Your task to perform on an android device: check google app version Image 0: 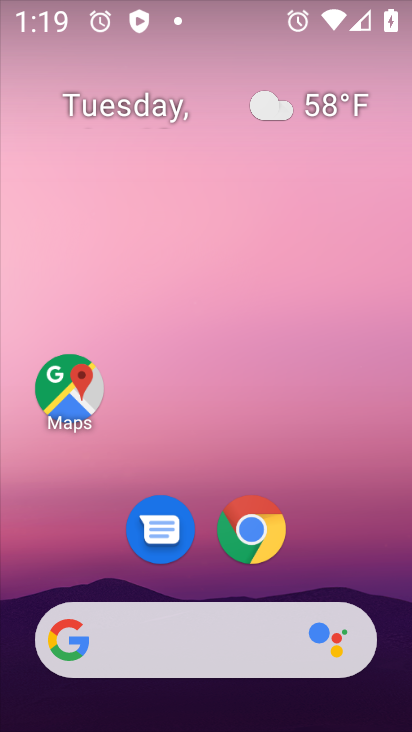
Step 0: drag from (205, 556) to (211, 255)
Your task to perform on an android device: check google app version Image 1: 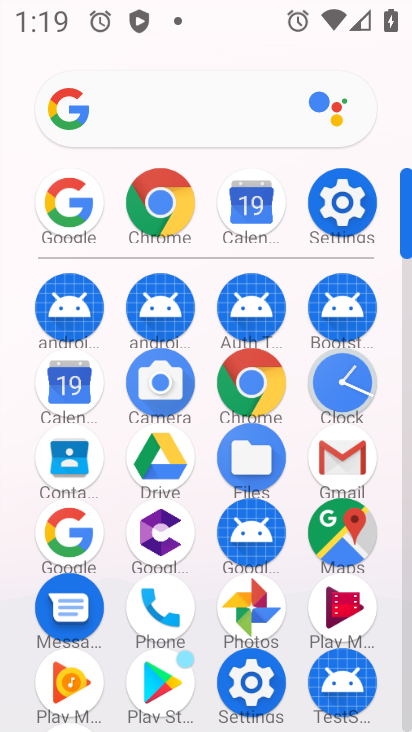
Step 1: click (71, 536)
Your task to perform on an android device: check google app version Image 2: 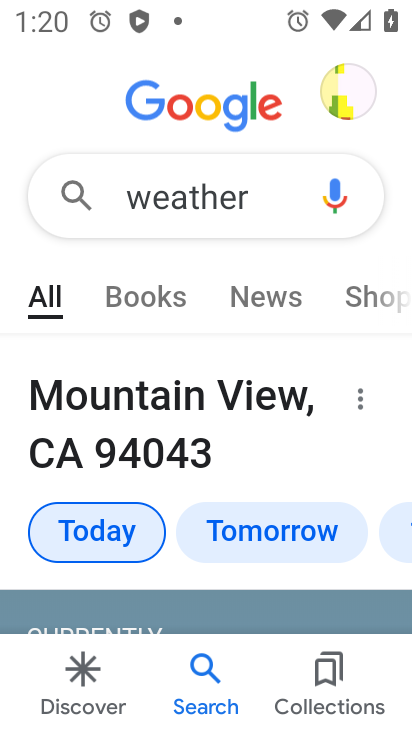
Step 2: click (346, 100)
Your task to perform on an android device: check google app version Image 3: 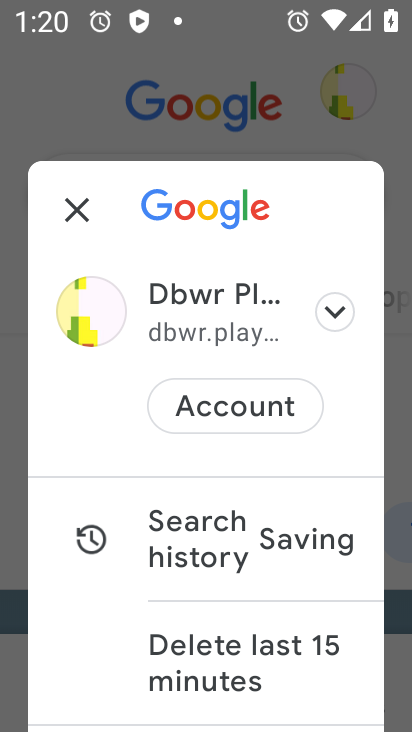
Step 3: drag from (279, 500) to (322, 98)
Your task to perform on an android device: check google app version Image 4: 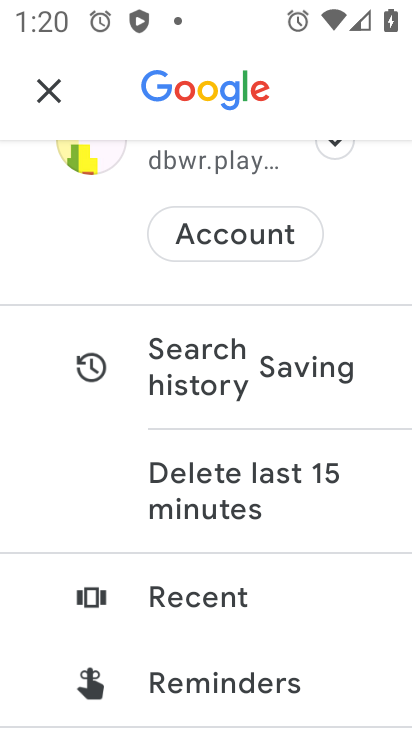
Step 4: drag from (233, 502) to (245, 136)
Your task to perform on an android device: check google app version Image 5: 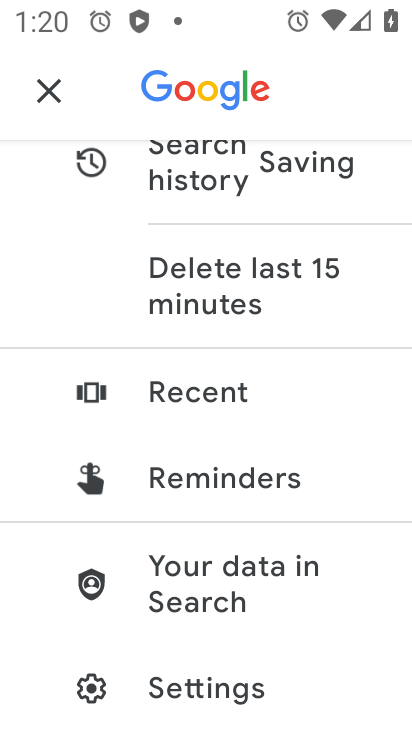
Step 5: drag from (221, 582) to (227, 216)
Your task to perform on an android device: check google app version Image 6: 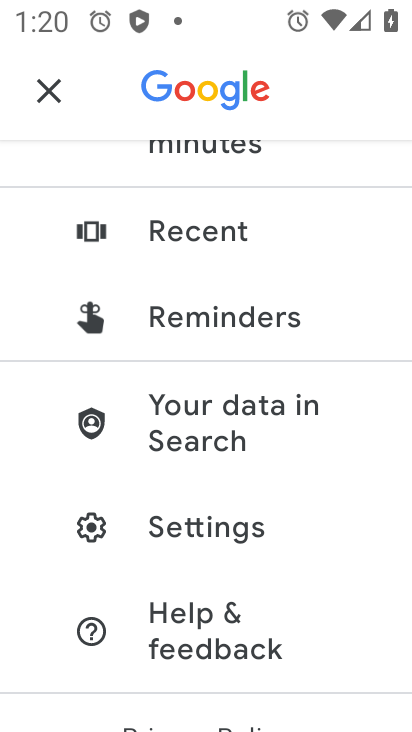
Step 6: click (208, 520)
Your task to perform on an android device: check google app version Image 7: 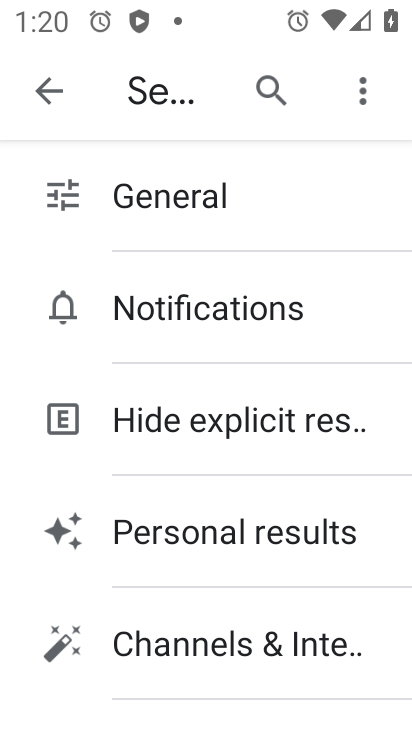
Step 7: drag from (228, 508) to (239, 225)
Your task to perform on an android device: check google app version Image 8: 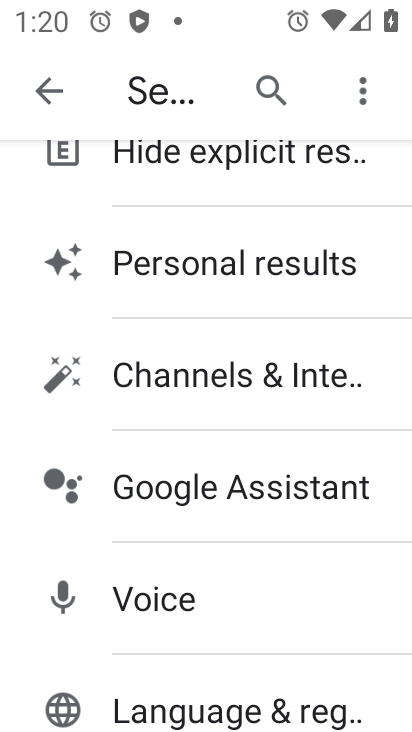
Step 8: drag from (244, 599) to (243, 317)
Your task to perform on an android device: check google app version Image 9: 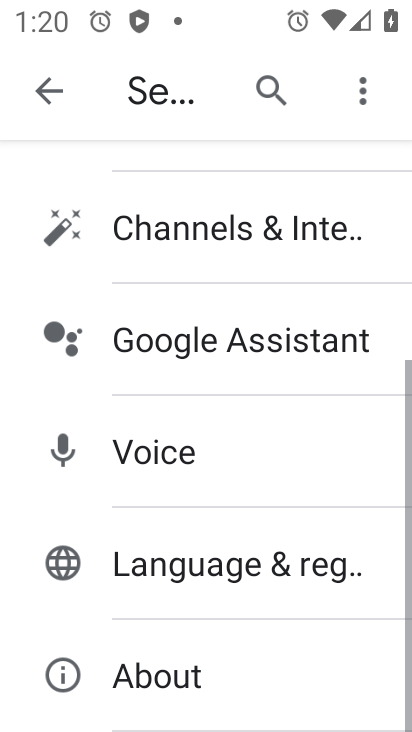
Step 9: click (230, 682)
Your task to perform on an android device: check google app version Image 10: 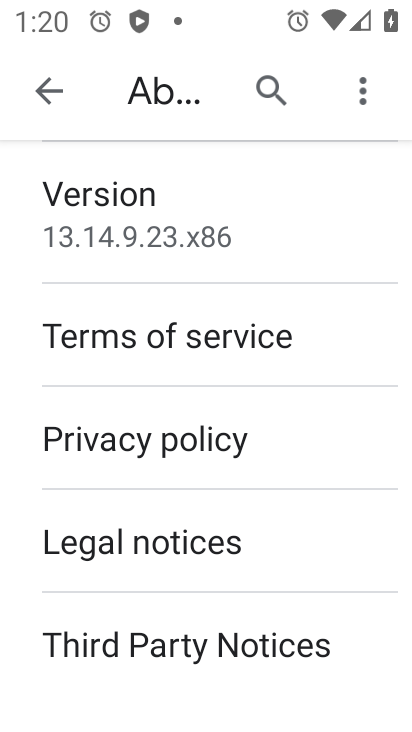
Step 10: task complete